Your task to perform on an android device: stop showing notifications on the lock screen Image 0: 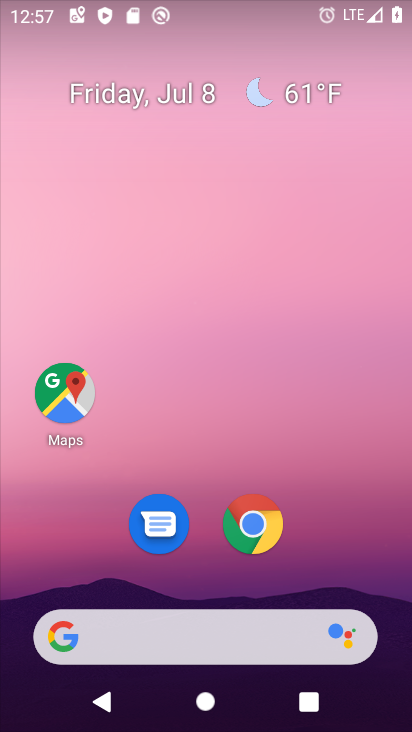
Step 0: drag from (343, 542) to (337, 46)
Your task to perform on an android device: stop showing notifications on the lock screen Image 1: 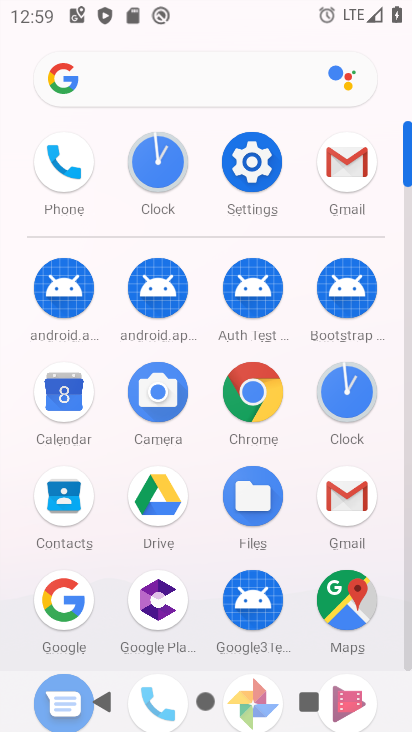
Step 1: click (265, 174)
Your task to perform on an android device: stop showing notifications on the lock screen Image 2: 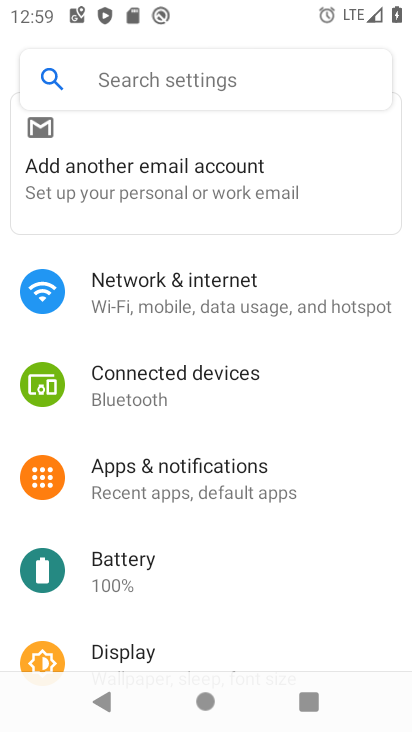
Step 2: click (228, 466)
Your task to perform on an android device: stop showing notifications on the lock screen Image 3: 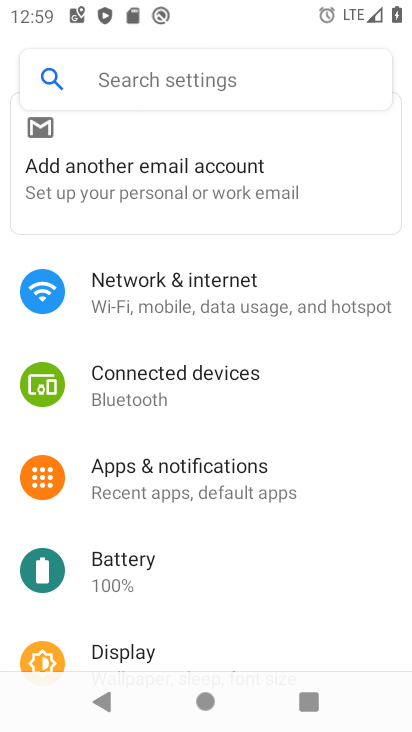
Step 3: click (234, 485)
Your task to perform on an android device: stop showing notifications on the lock screen Image 4: 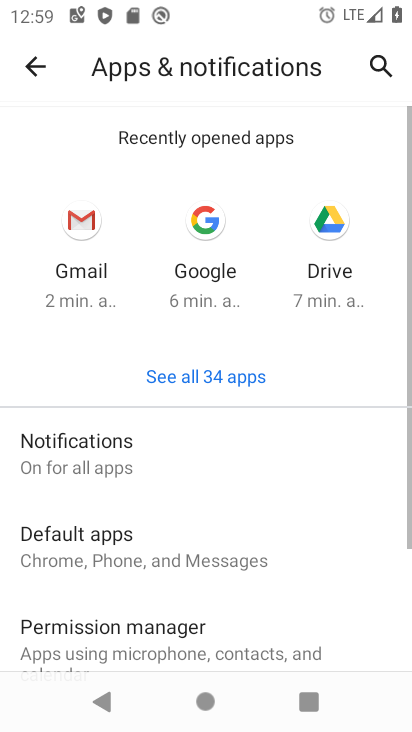
Step 4: click (114, 441)
Your task to perform on an android device: stop showing notifications on the lock screen Image 5: 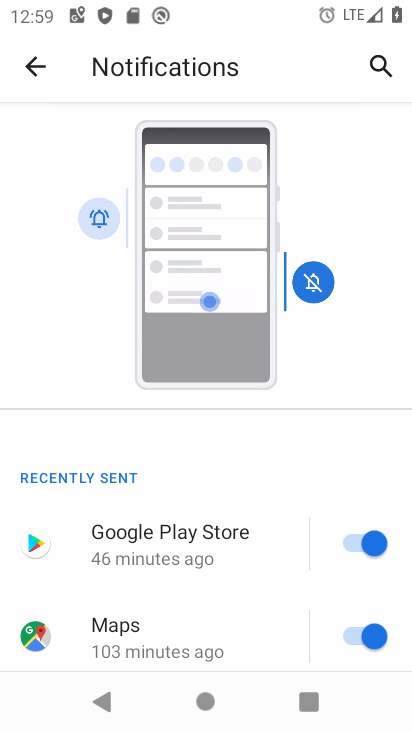
Step 5: drag from (235, 599) to (242, 199)
Your task to perform on an android device: stop showing notifications on the lock screen Image 6: 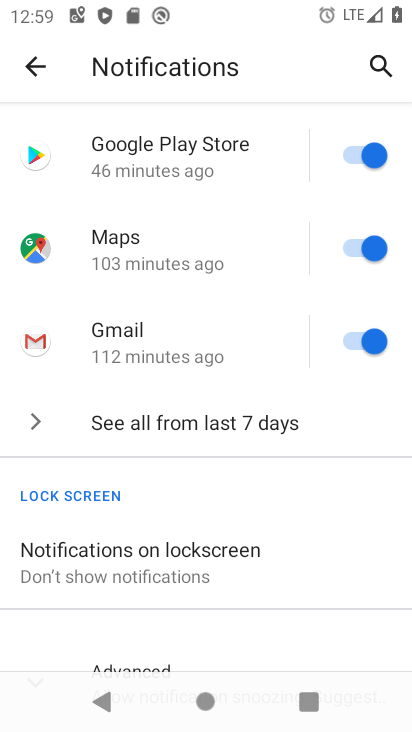
Step 6: click (237, 565)
Your task to perform on an android device: stop showing notifications on the lock screen Image 7: 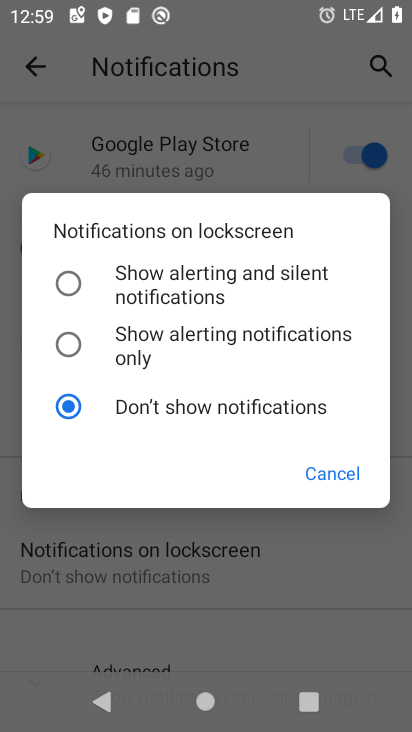
Step 7: click (352, 464)
Your task to perform on an android device: stop showing notifications on the lock screen Image 8: 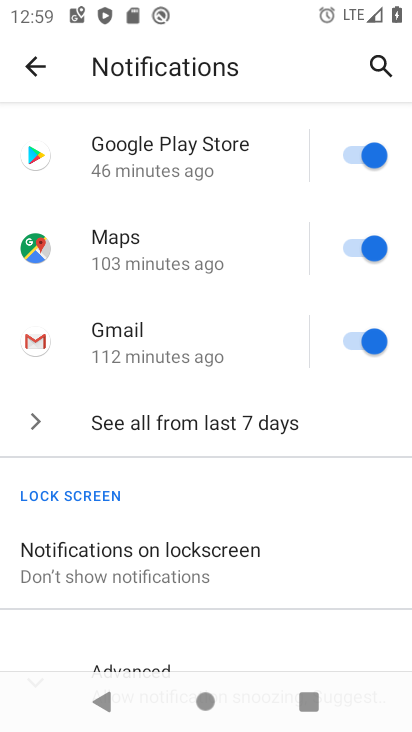
Step 8: task complete